Your task to perform on an android device: turn on sleep mode Image 0: 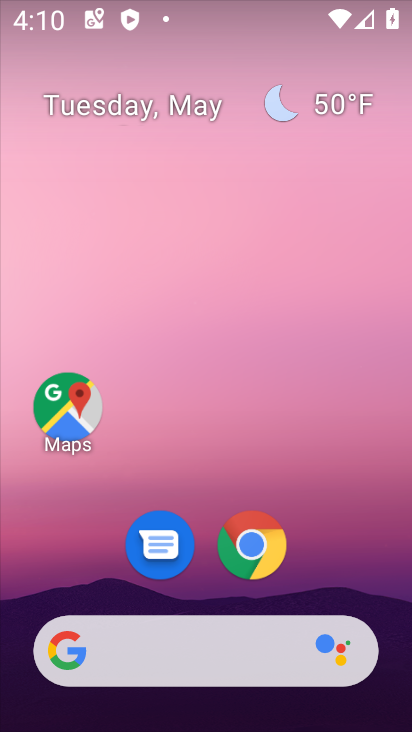
Step 0: drag from (212, 581) to (252, 97)
Your task to perform on an android device: turn on sleep mode Image 1: 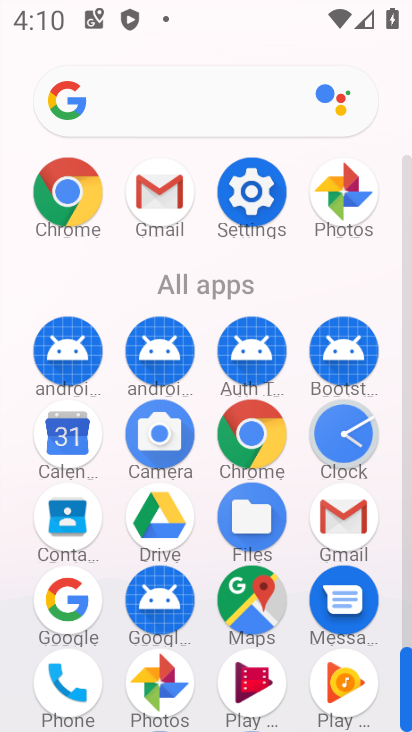
Step 1: click (253, 205)
Your task to perform on an android device: turn on sleep mode Image 2: 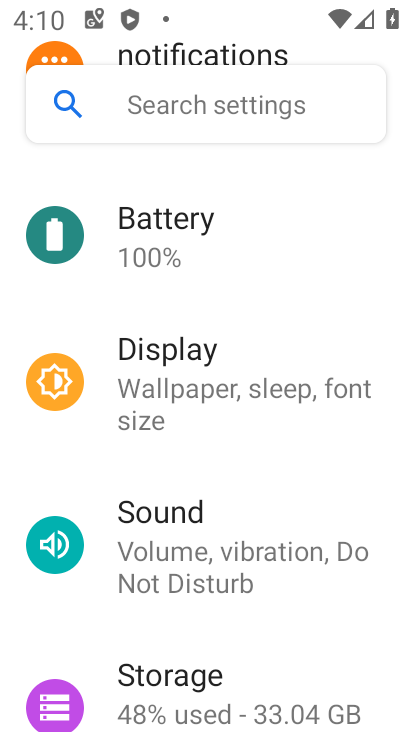
Step 2: click (180, 111)
Your task to perform on an android device: turn on sleep mode Image 3: 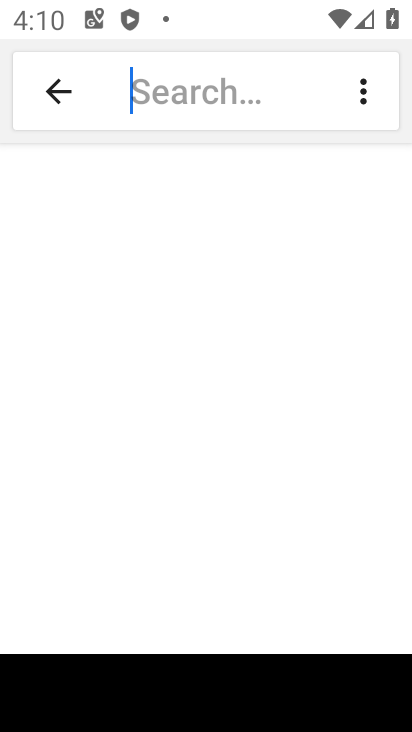
Step 3: click (220, 112)
Your task to perform on an android device: turn on sleep mode Image 4: 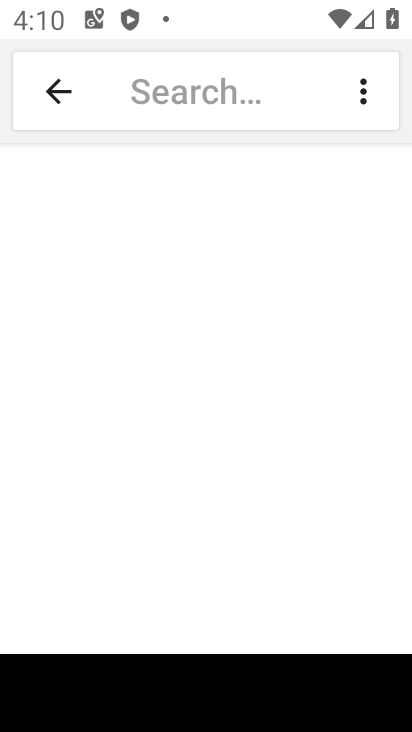
Step 4: type "sleep mode"
Your task to perform on an android device: turn on sleep mode Image 5: 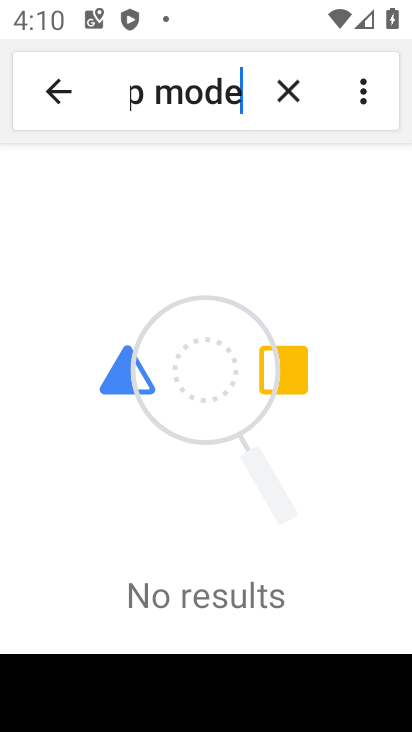
Step 5: task complete